Your task to perform on an android device: Go to Maps Image 0: 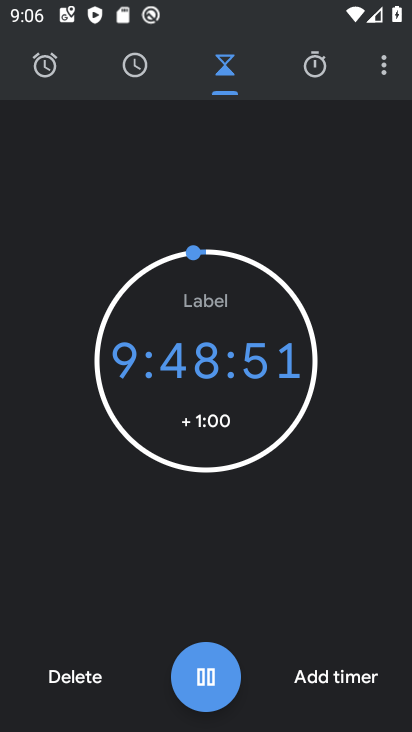
Step 0: press home button
Your task to perform on an android device: Go to Maps Image 1: 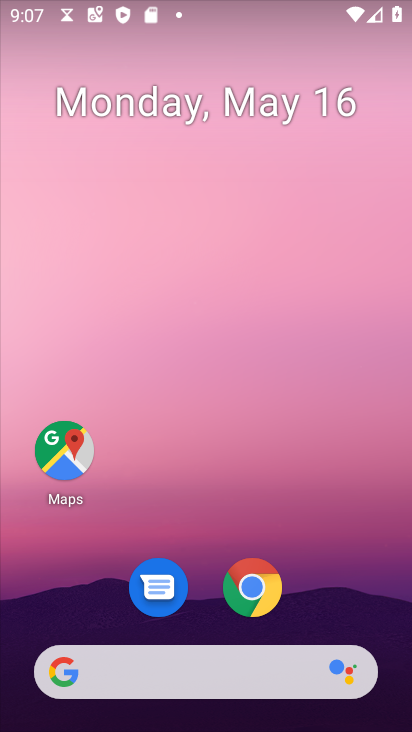
Step 1: click (58, 455)
Your task to perform on an android device: Go to Maps Image 2: 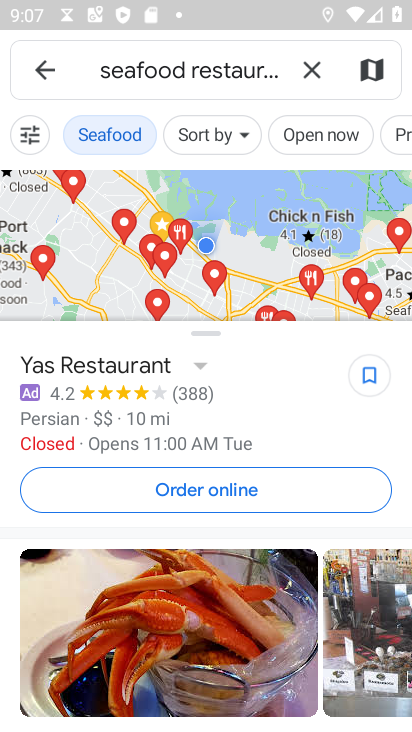
Step 2: task complete